Your task to perform on an android device: What is the news today? Image 0: 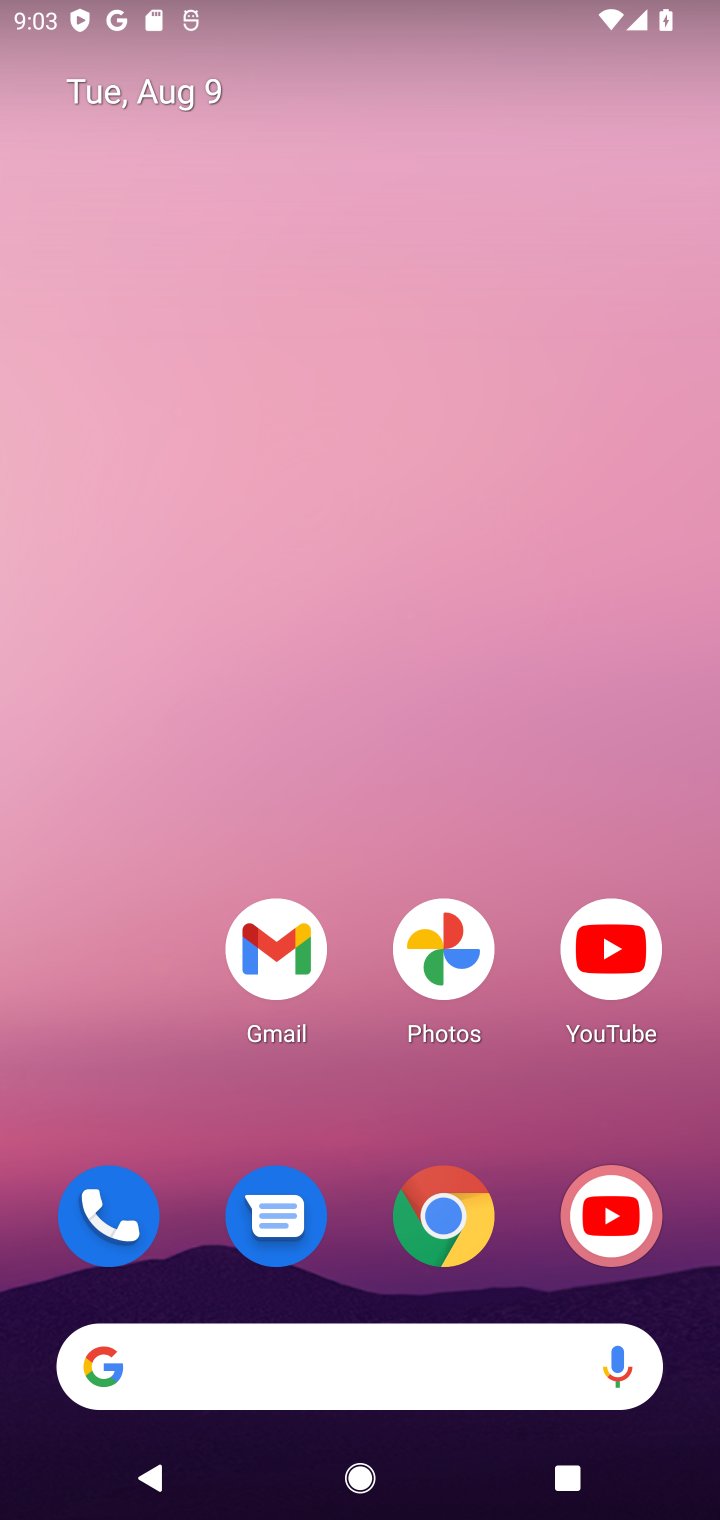
Step 0: click (291, 904)
Your task to perform on an android device: What is the news today? Image 1: 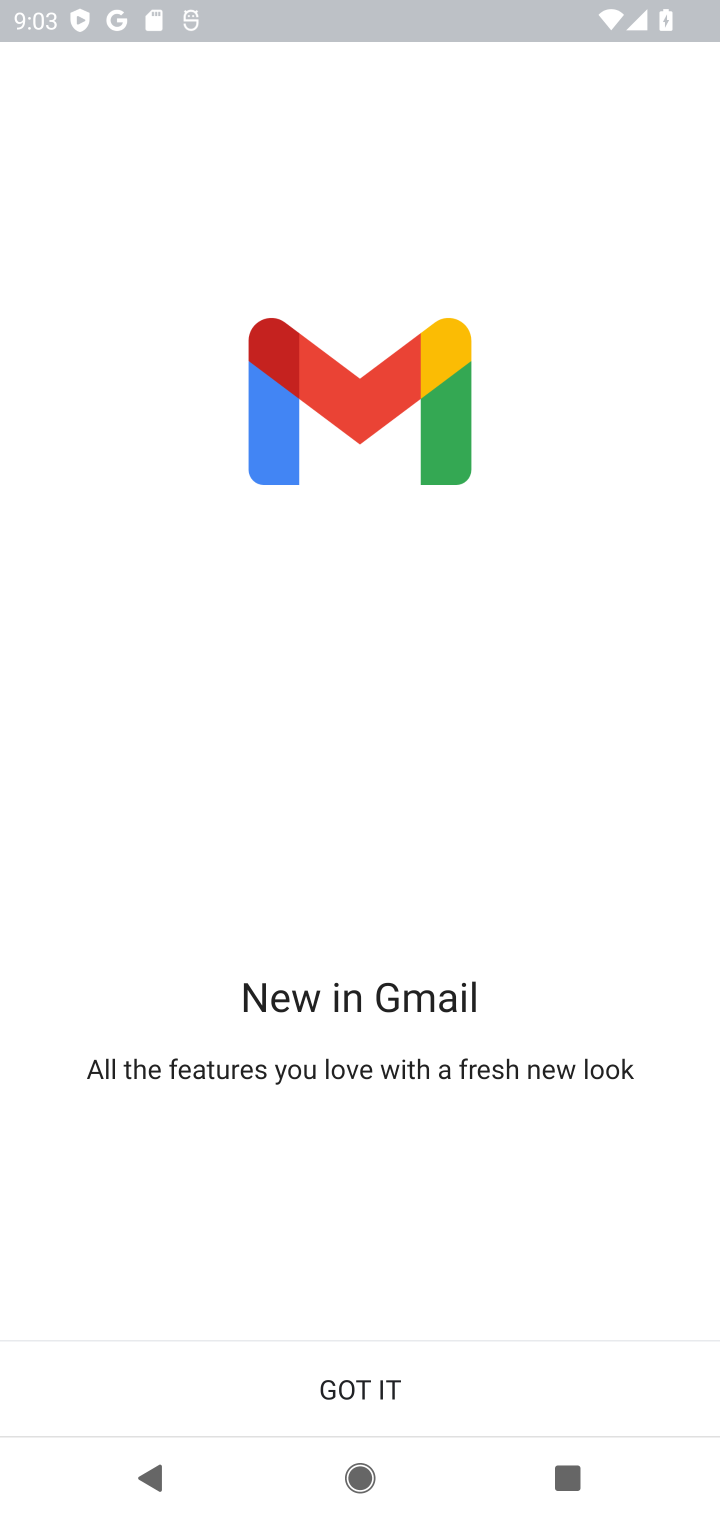
Step 1: press home button
Your task to perform on an android device: What is the news today? Image 2: 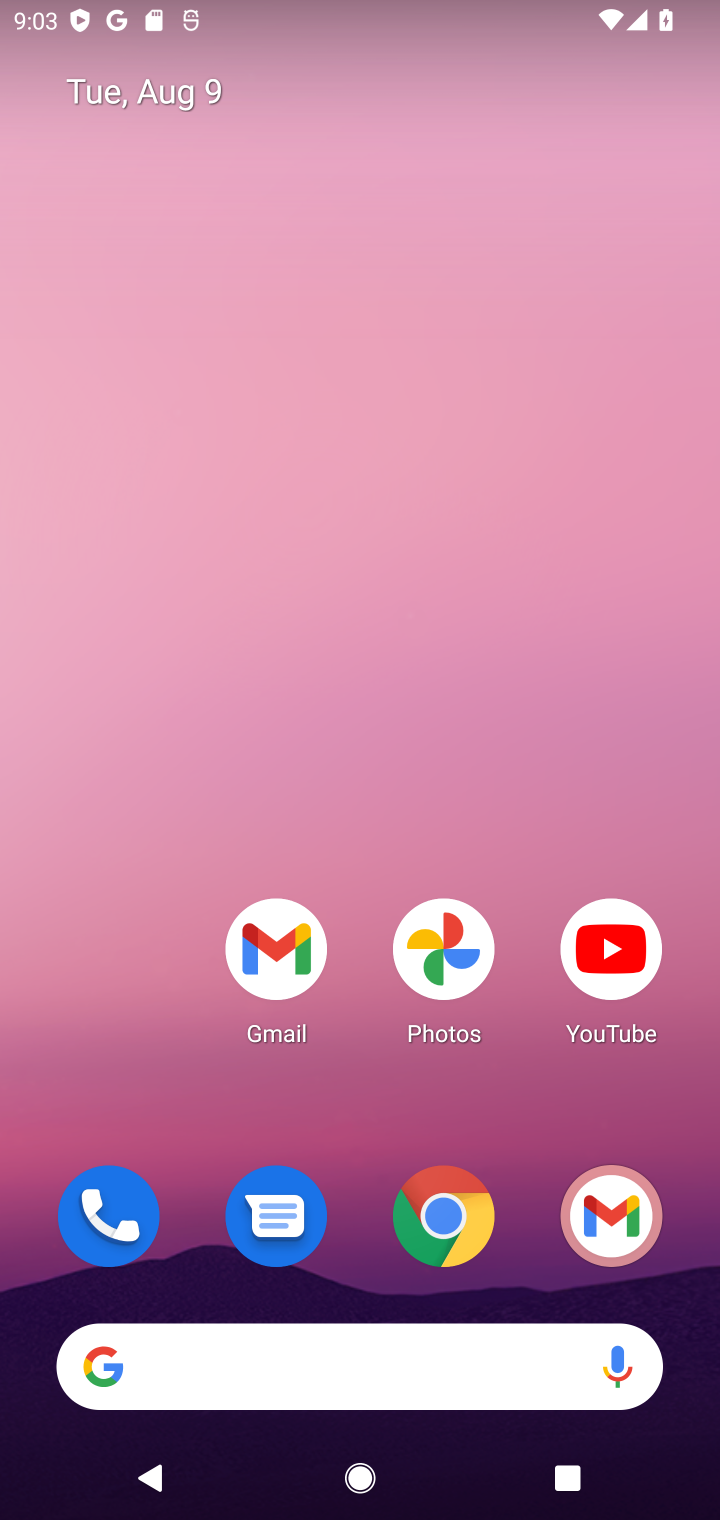
Step 2: click (365, 797)
Your task to perform on an android device: What is the news today? Image 3: 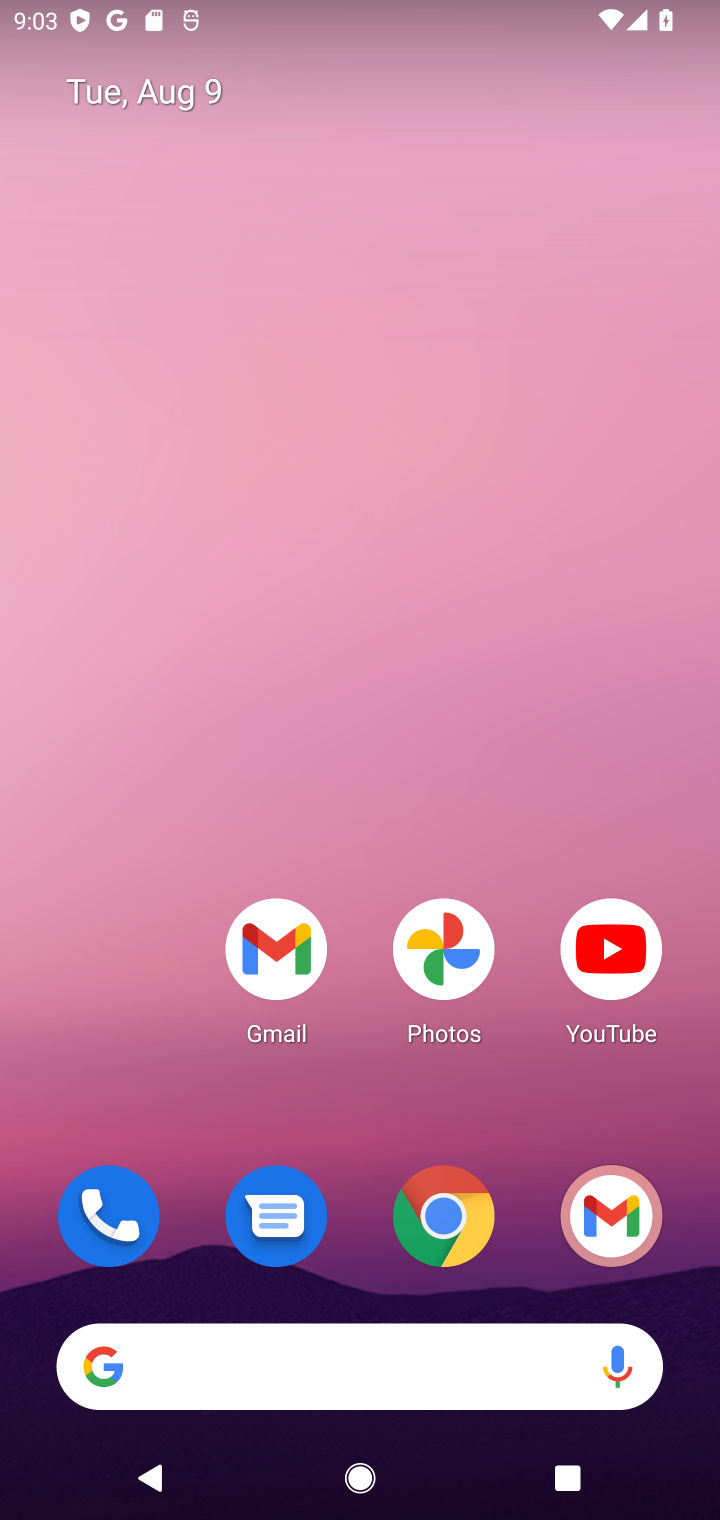
Step 3: click (364, 952)
Your task to perform on an android device: What is the news today? Image 4: 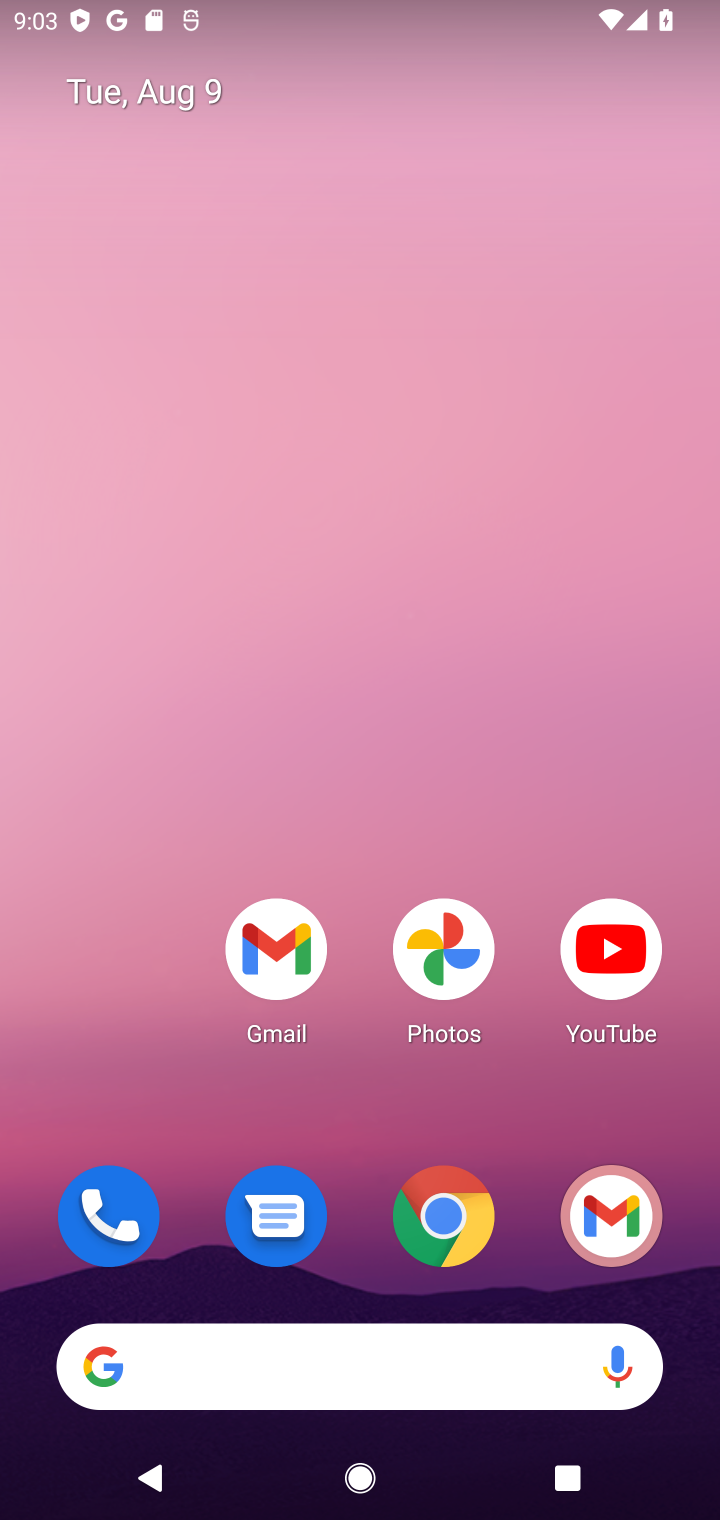
Step 4: drag from (345, 1215) to (320, 453)
Your task to perform on an android device: What is the news today? Image 5: 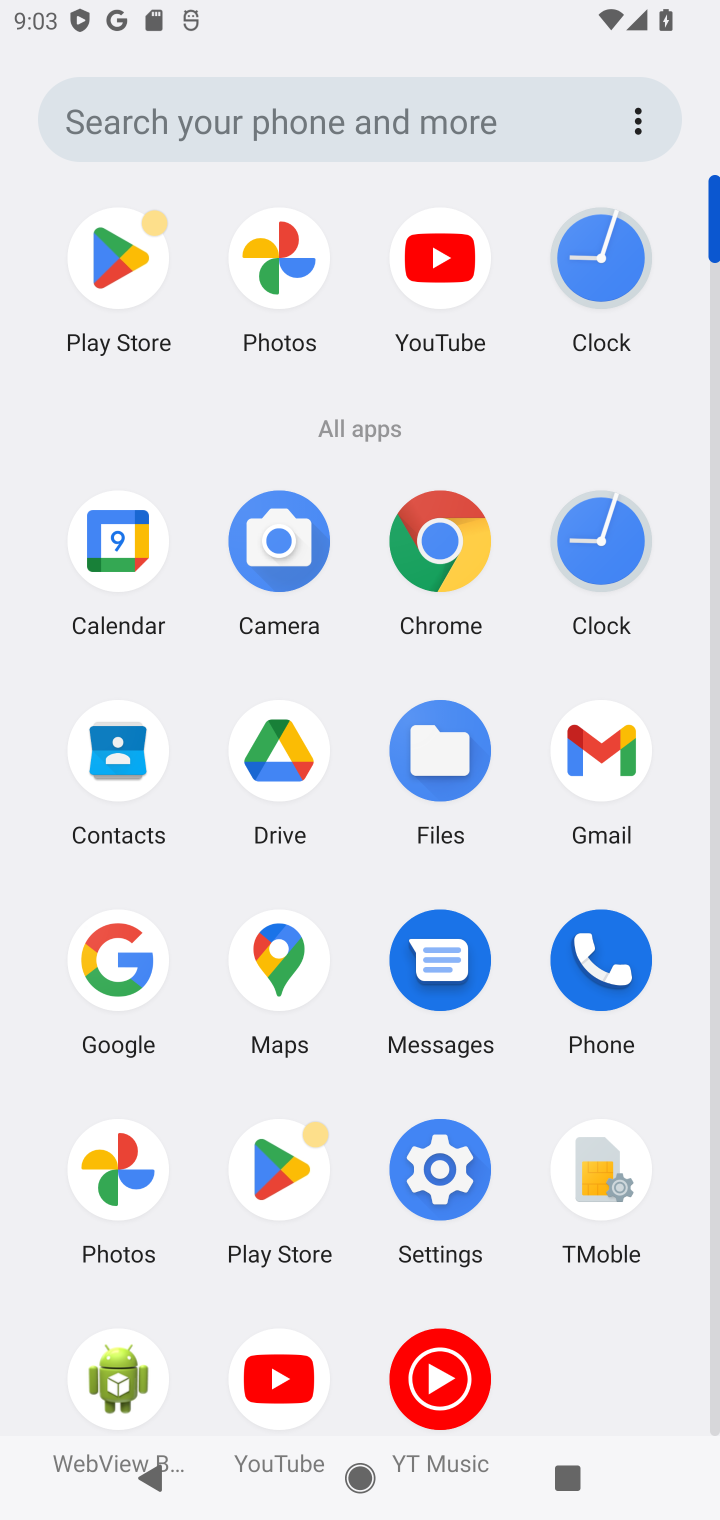
Step 5: click (98, 974)
Your task to perform on an android device: What is the news today? Image 6: 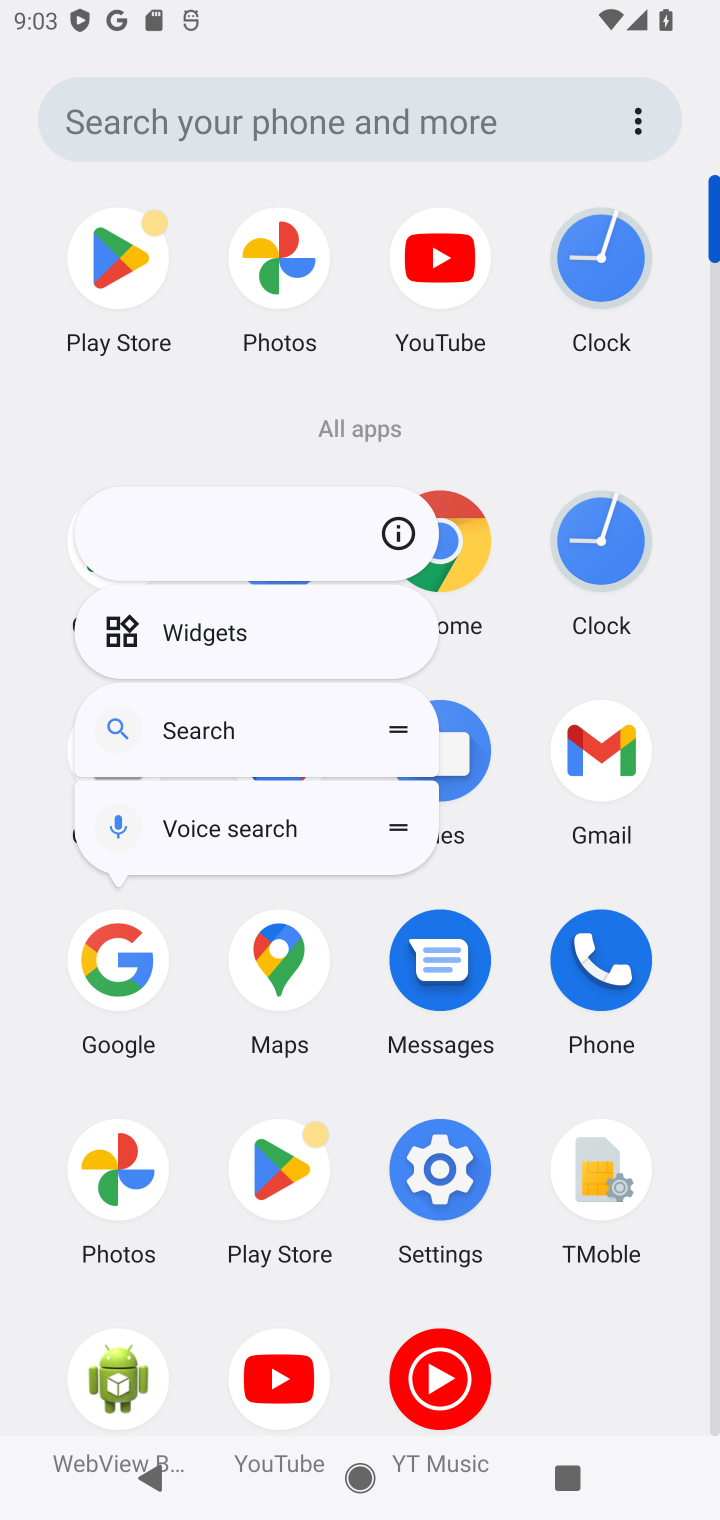
Step 6: click (98, 972)
Your task to perform on an android device: What is the news today? Image 7: 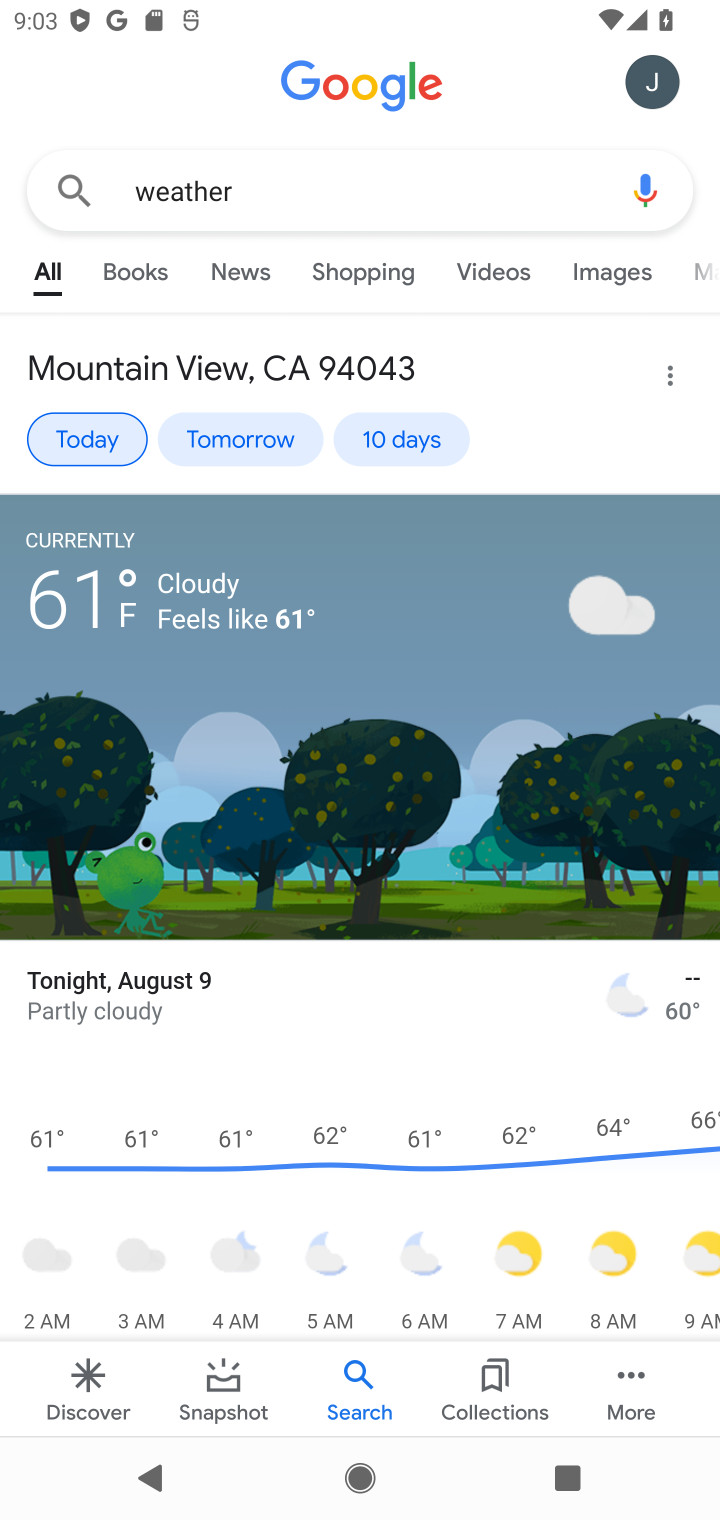
Step 7: click (277, 193)
Your task to perform on an android device: What is the news today? Image 8: 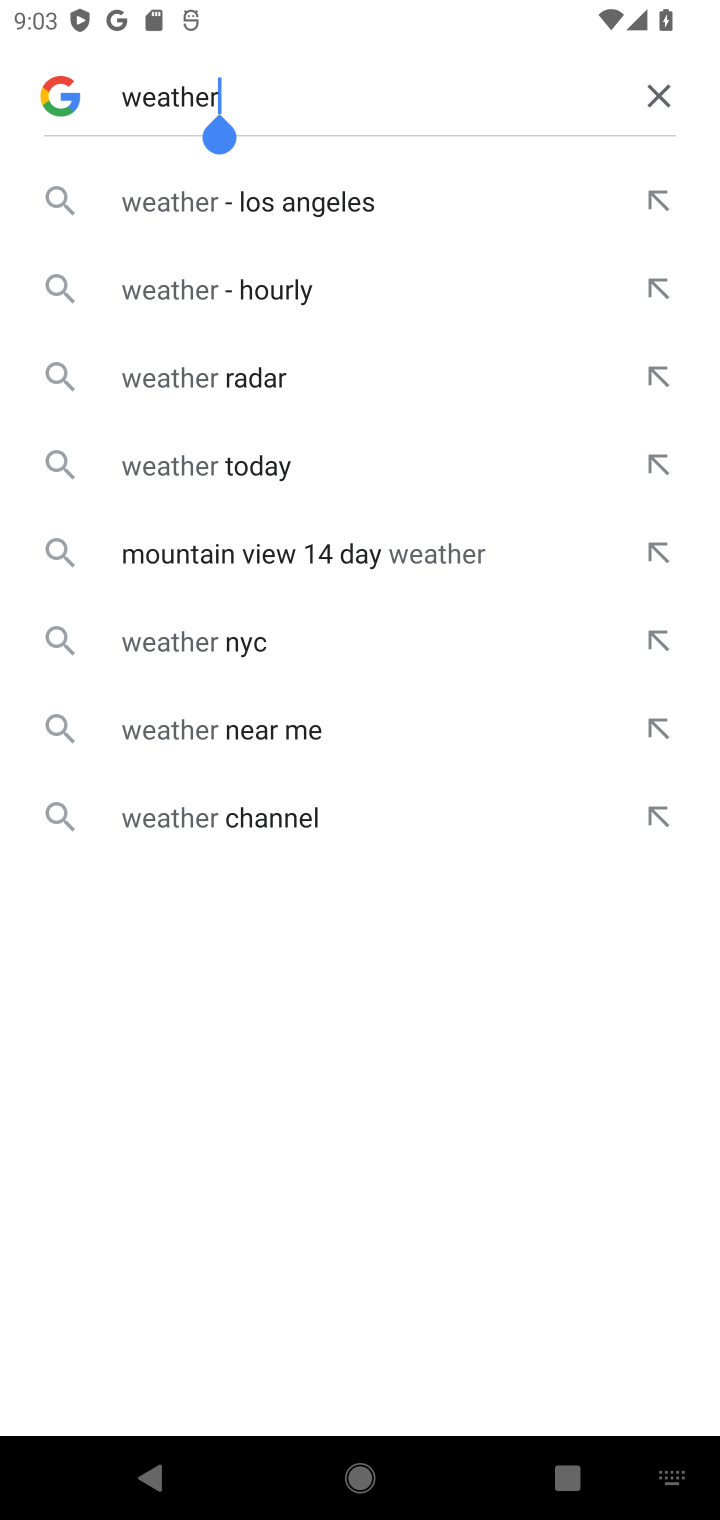
Step 8: click (661, 103)
Your task to perform on an android device: What is the news today? Image 9: 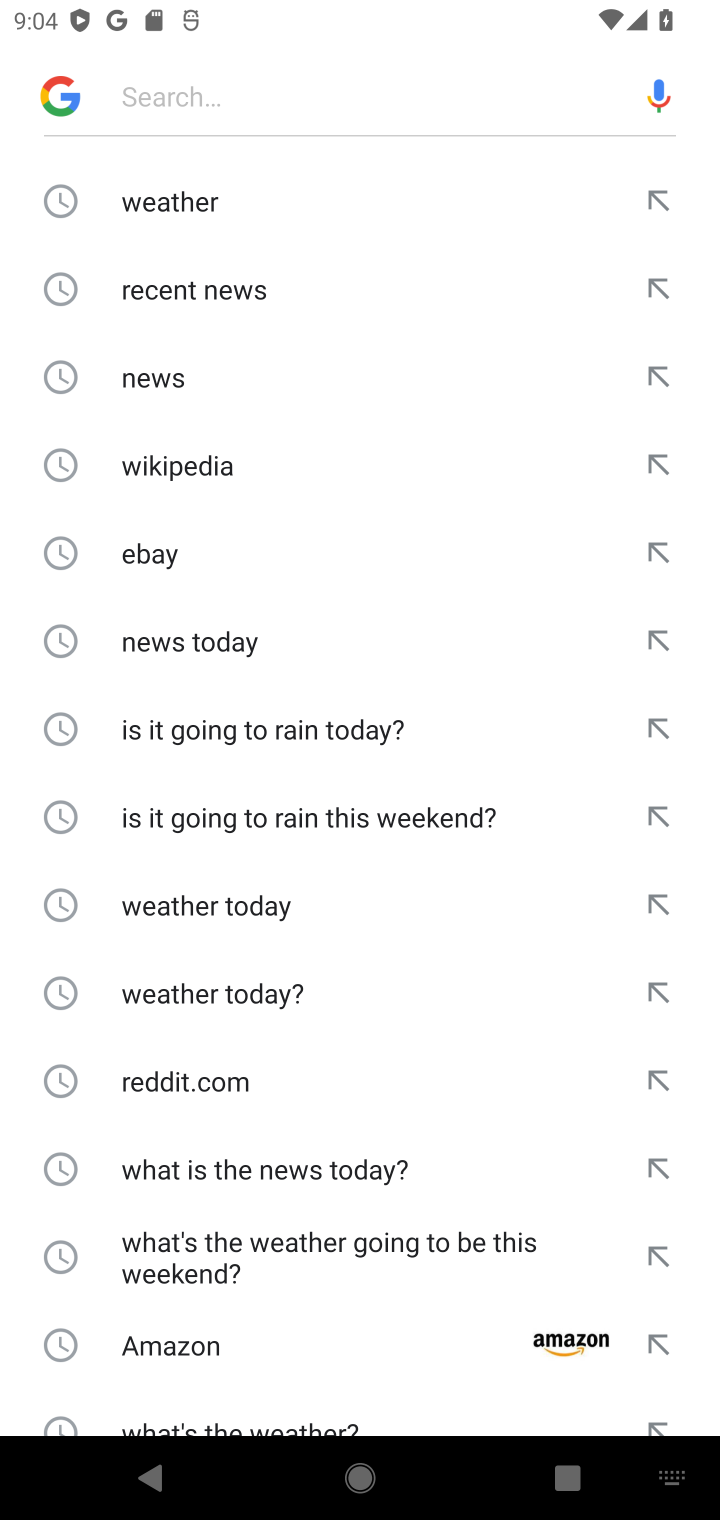
Step 9: click (151, 382)
Your task to perform on an android device: What is the news today? Image 10: 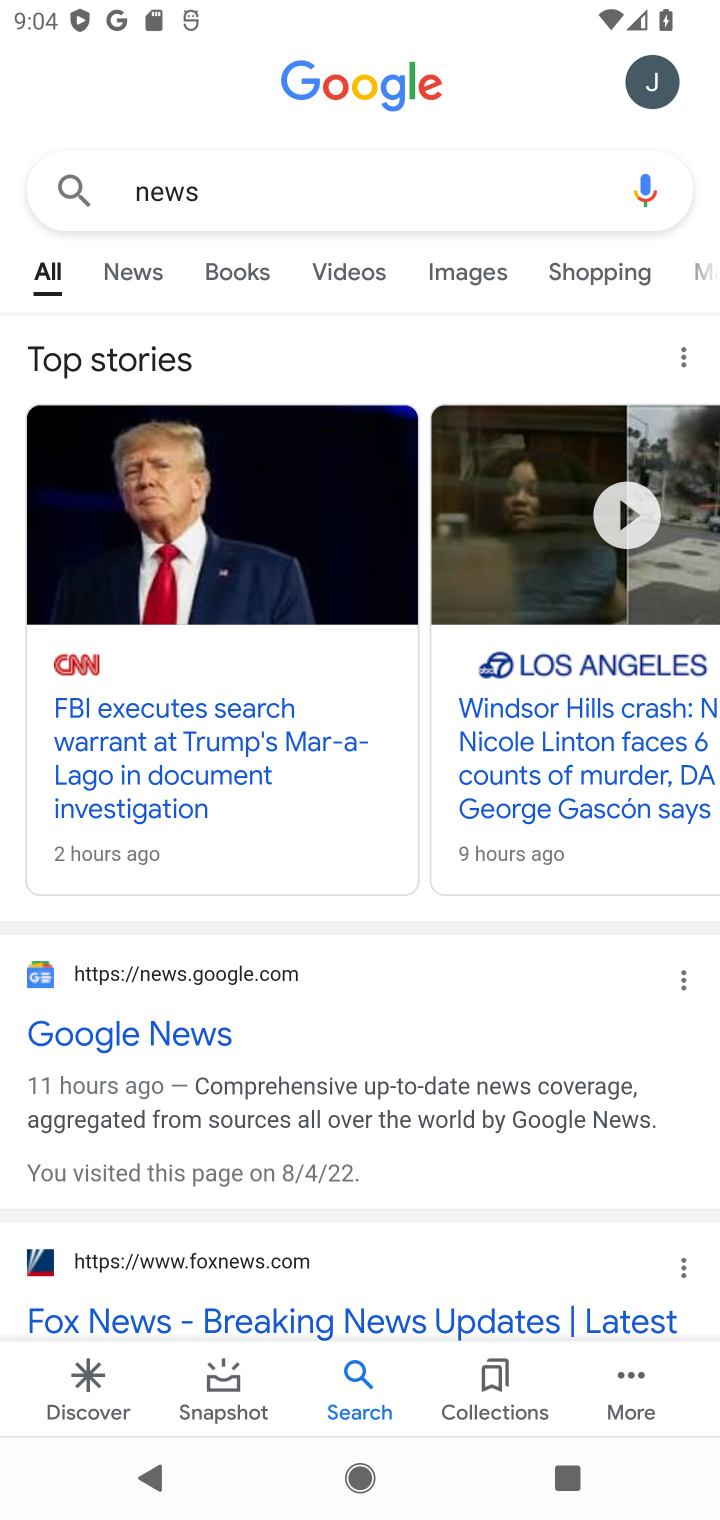
Step 10: task complete